Your task to perform on an android device: Go to privacy settings Image 0: 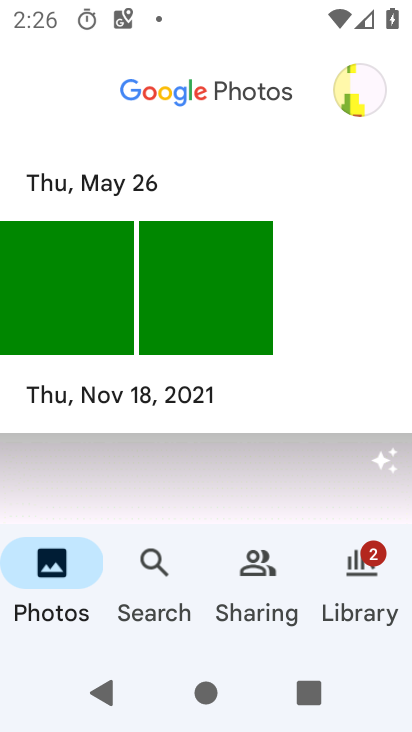
Step 0: press home button
Your task to perform on an android device: Go to privacy settings Image 1: 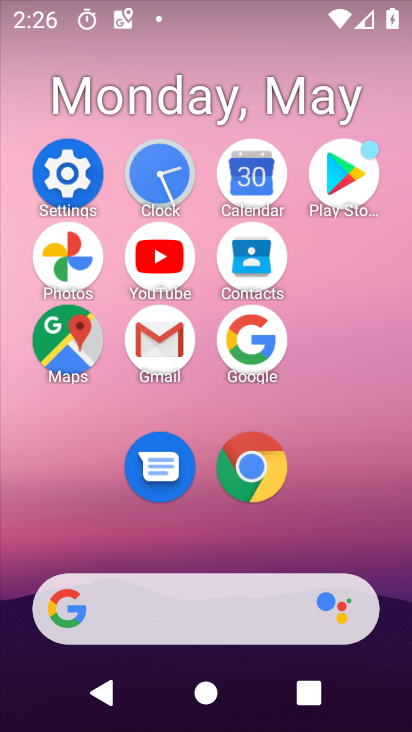
Step 1: click (87, 179)
Your task to perform on an android device: Go to privacy settings Image 2: 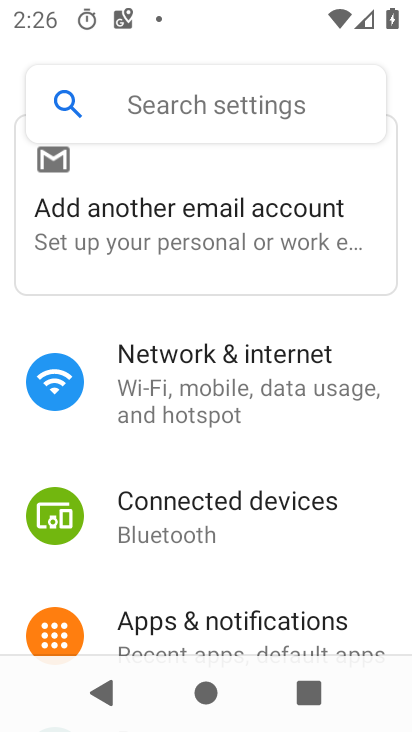
Step 2: drag from (262, 483) to (252, 139)
Your task to perform on an android device: Go to privacy settings Image 3: 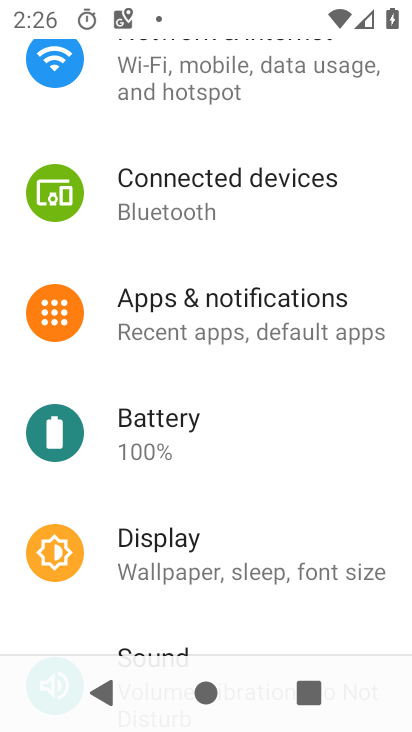
Step 3: drag from (255, 455) to (274, 101)
Your task to perform on an android device: Go to privacy settings Image 4: 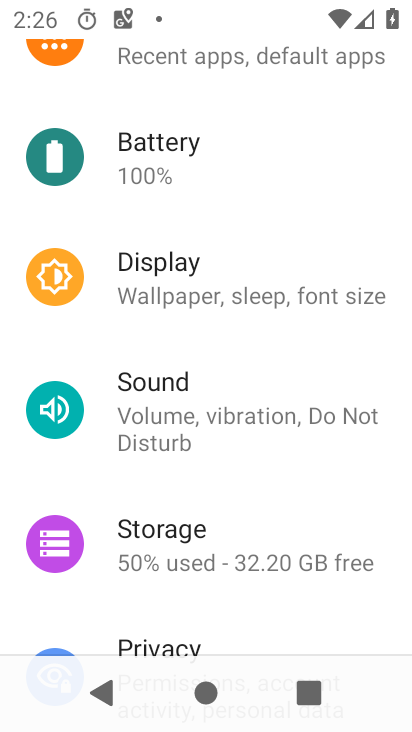
Step 4: drag from (238, 543) to (266, 178)
Your task to perform on an android device: Go to privacy settings Image 5: 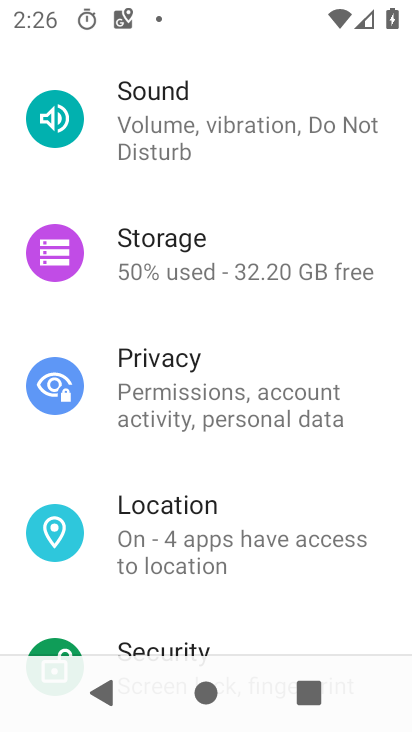
Step 5: click (240, 398)
Your task to perform on an android device: Go to privacy settings Image 6: 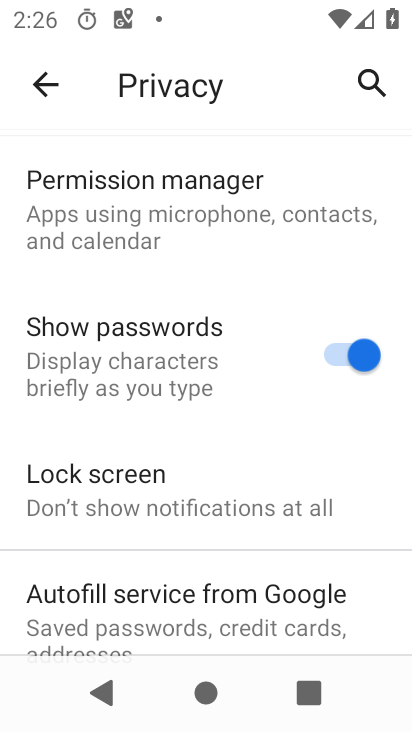
Step 6: task complete